Your task to perform on an android device: What's the news in South Korea? Image 0: 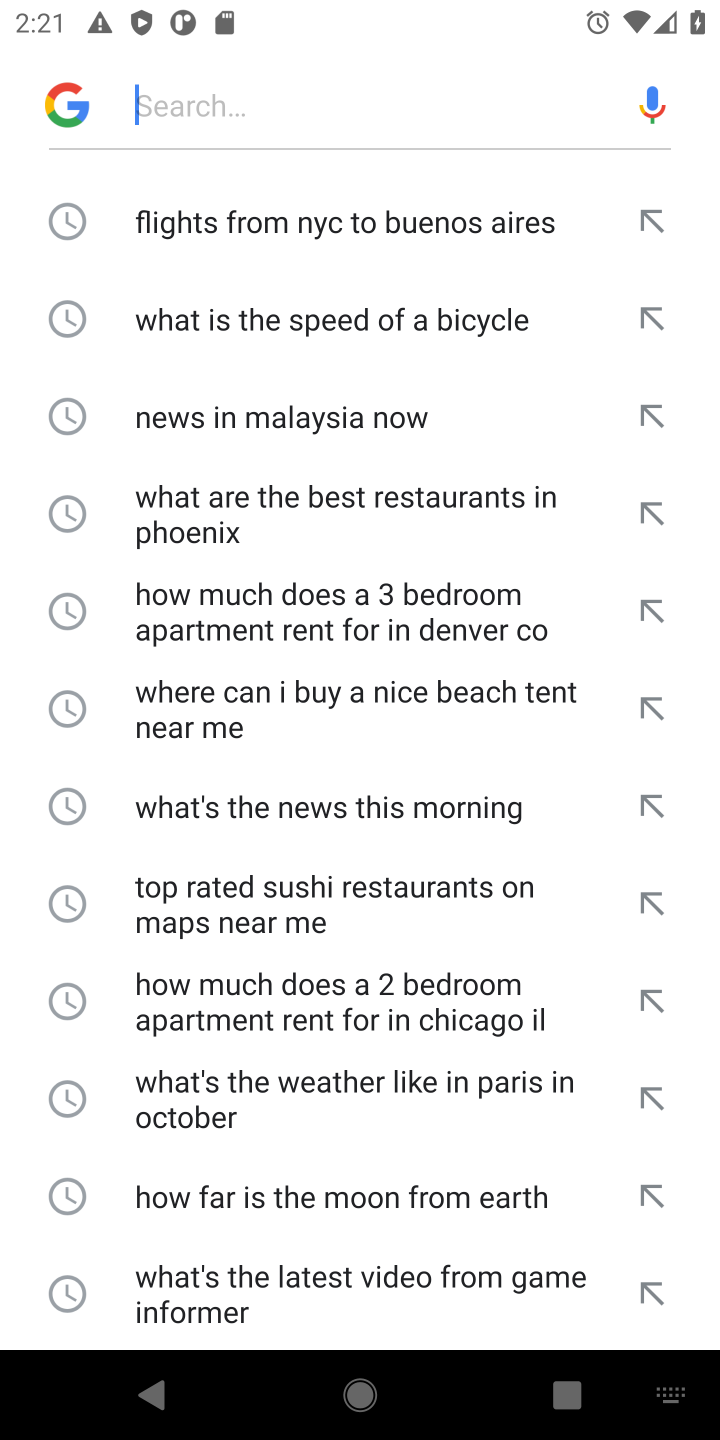
Step 0: press home button
Your task to perform on an android device: What's the news in South Korea? Image 1: 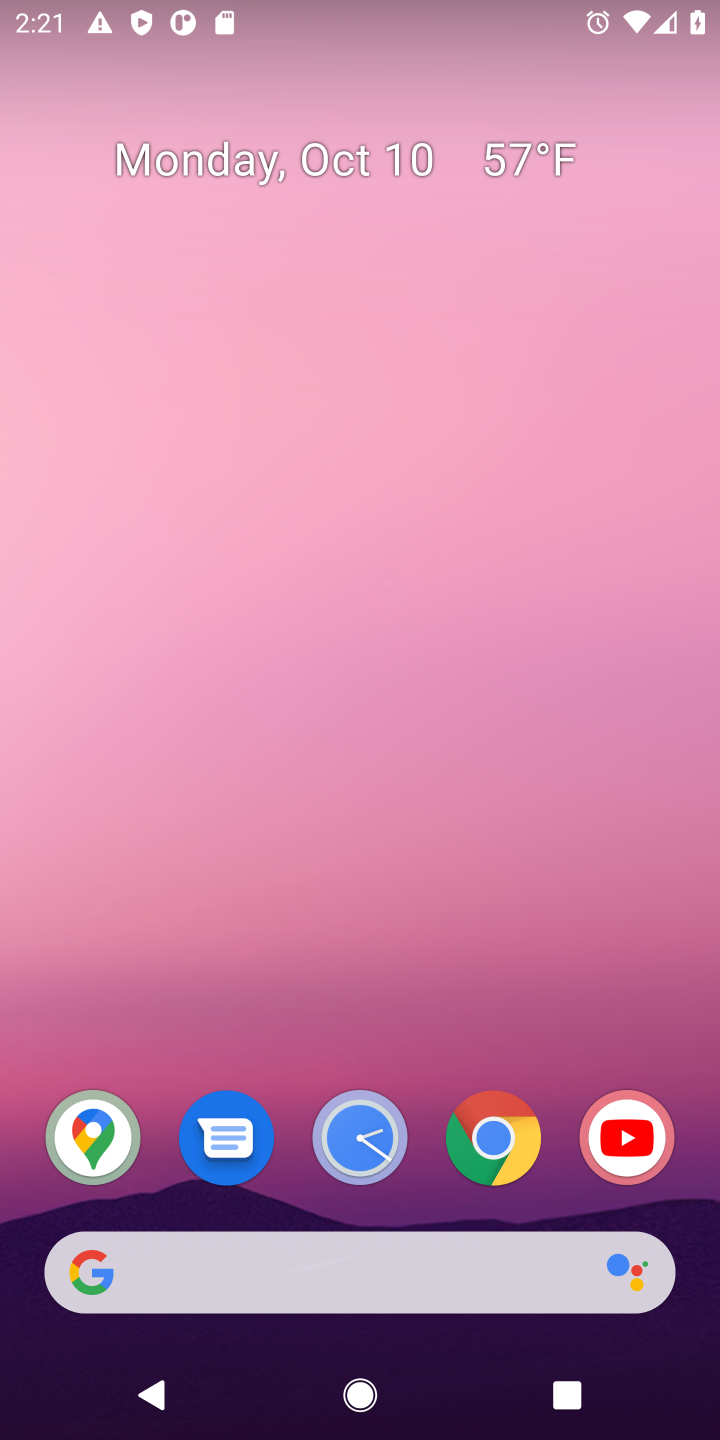
Step 1: click (343, 1245)
Your task to perform on an android device: What's the news in South Korea? Image 2: 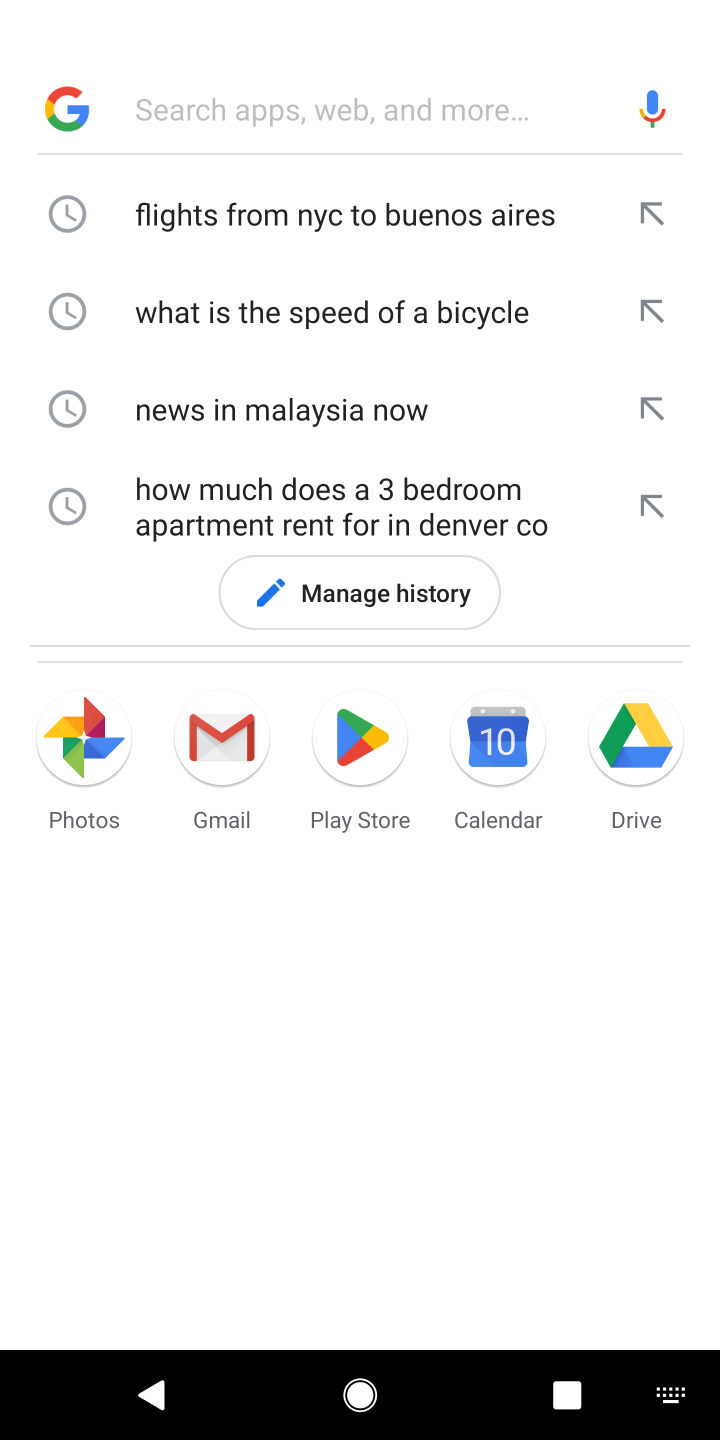
Step 2: type "whats the news in south korea"
Your task to perform on an android device: What's the news in South Korea? Image 3: 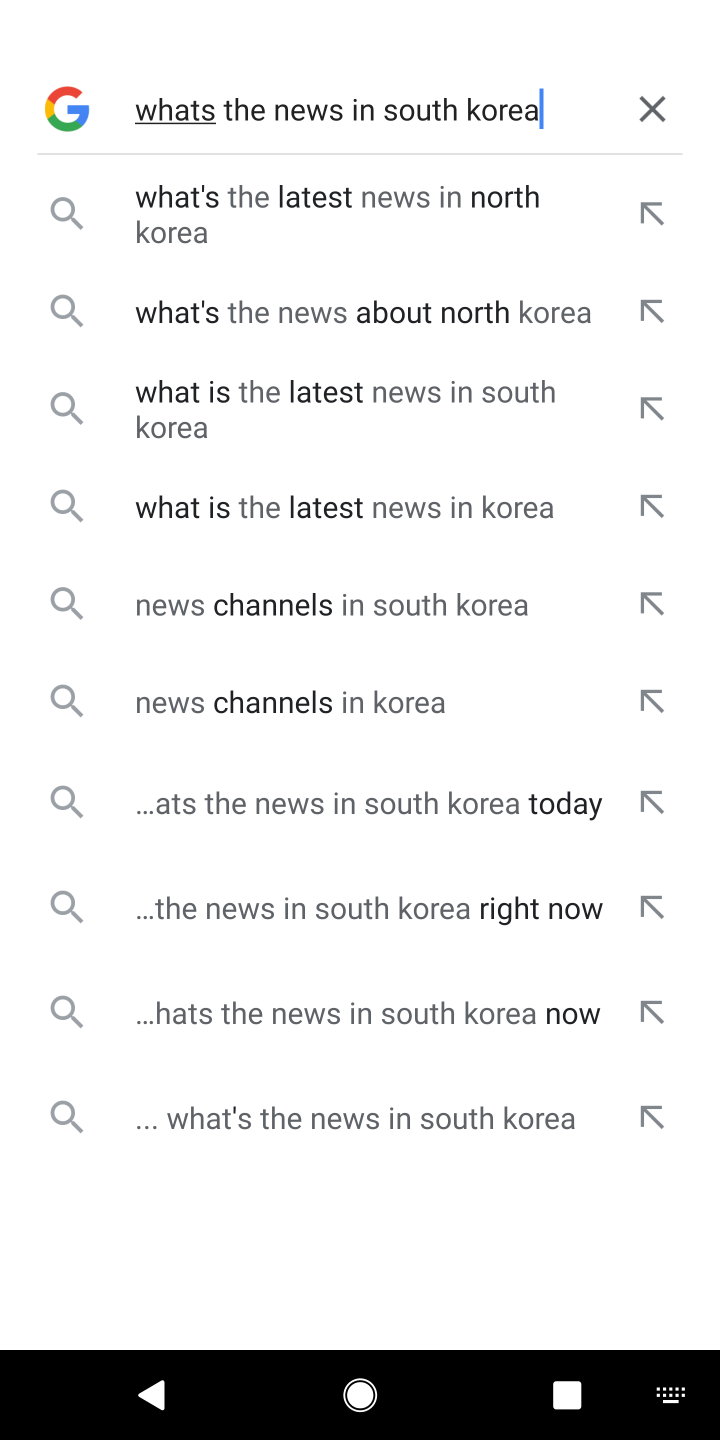
Step 3: click (289, 413)
Your task to perform on an android device: What's the news in South Korea? Image 4: 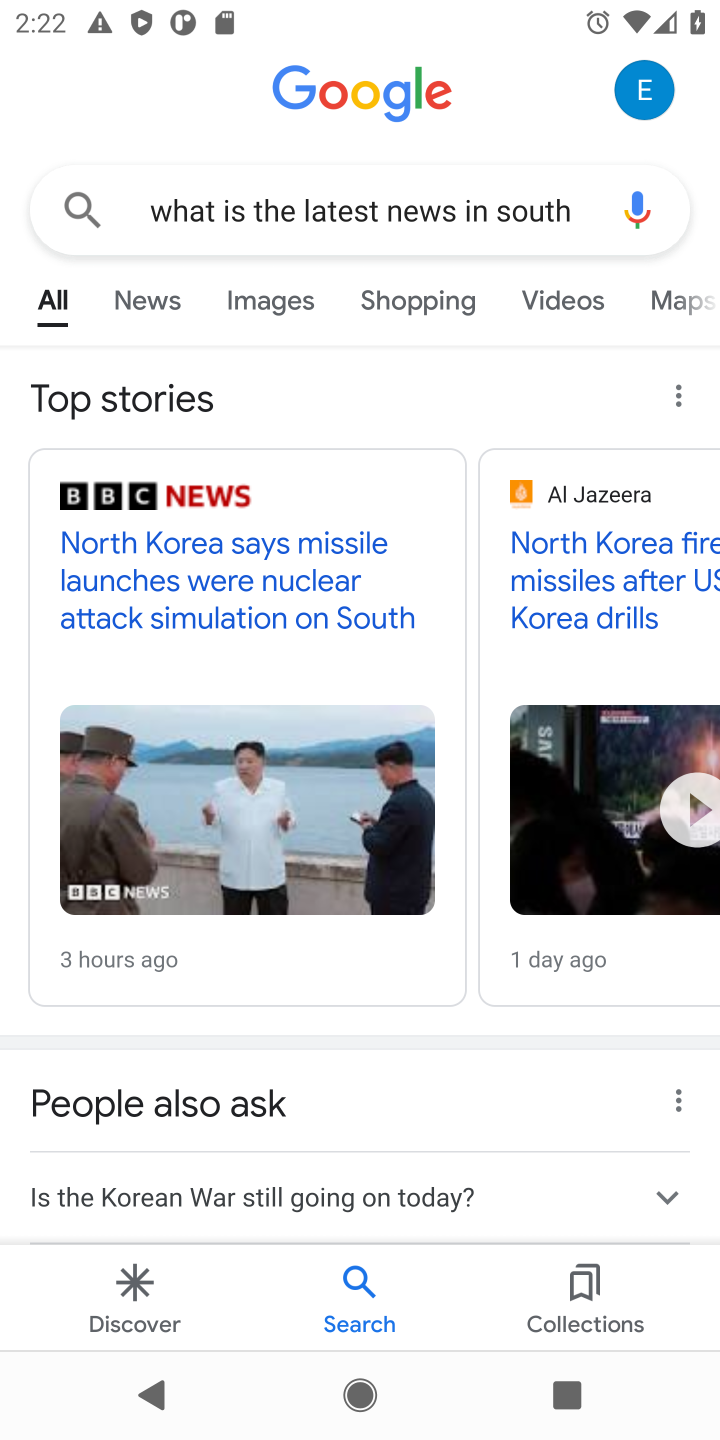
Step 4: task complete